Your task to perform on an android device: Open the stopwatch Image 0: 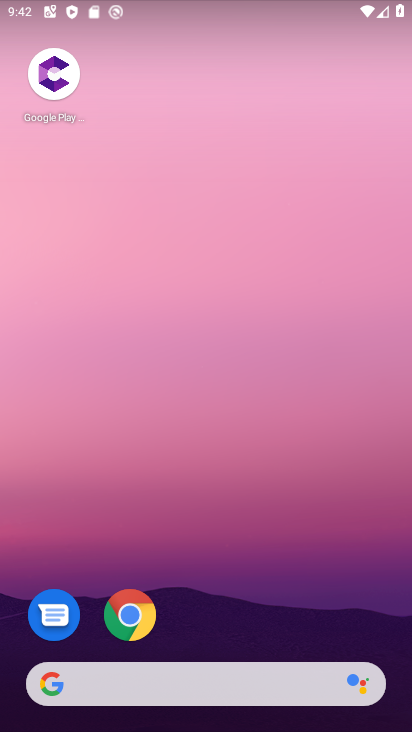
Step 0: drag from (336, 611) to (266, 76)
Your task to perform on an android device: Open the stopwatch Image 1: 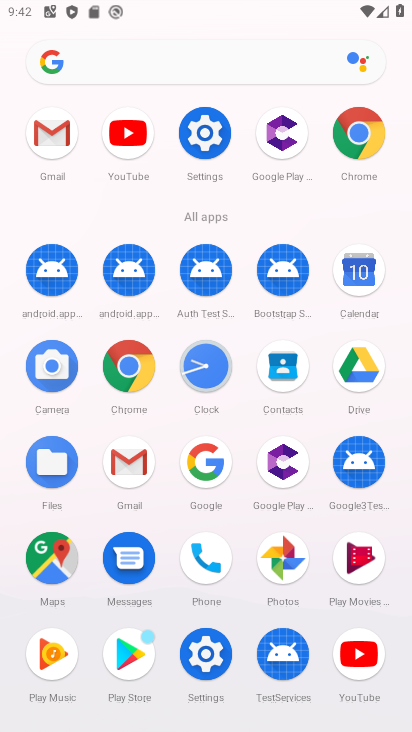
Step 1: click (210, 362)
Your task to perform on an android device: Open the stopwatch Image 2: 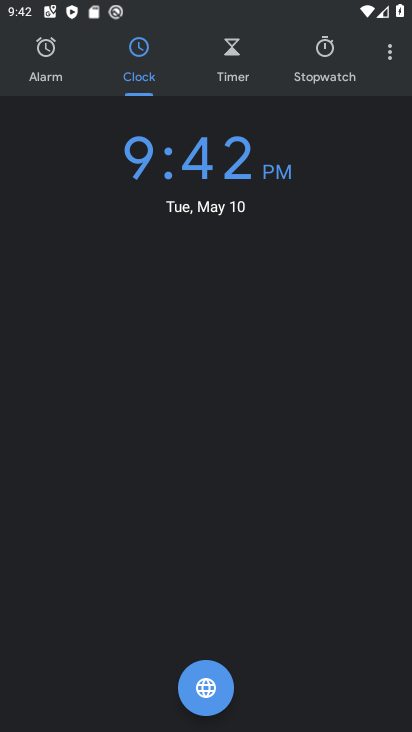
Step 2: click (327, 53)
Your task to perform on an android device: Open the stopwatch Image 3: 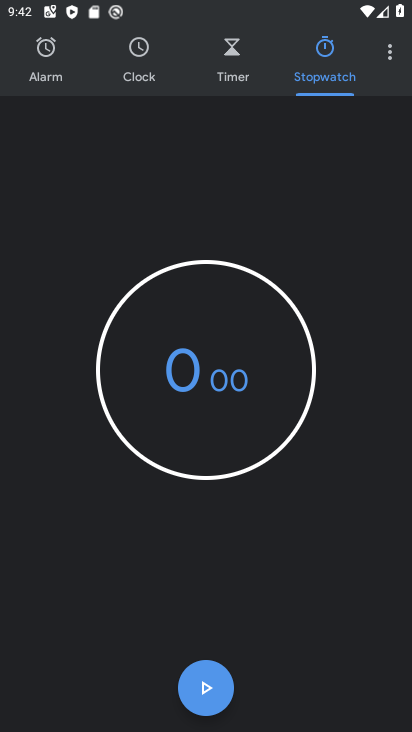
Step 3: task complete